Your task to perform on an android device: Show me the alarms in the clock app Image 0: 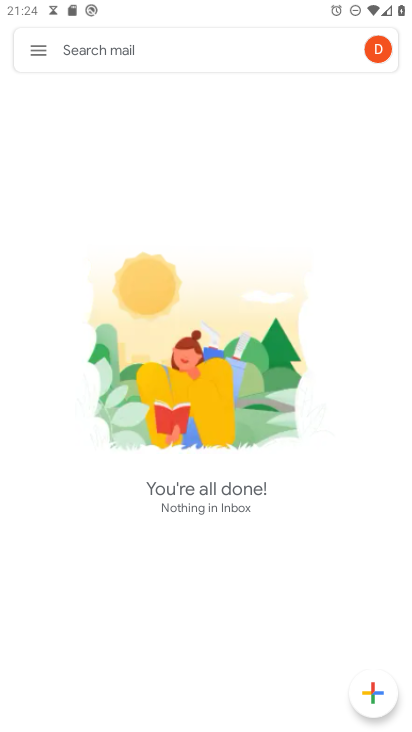
Step 0: press home button
Your task to perform on an android device: Show me the alarms in the clock app Image 1: 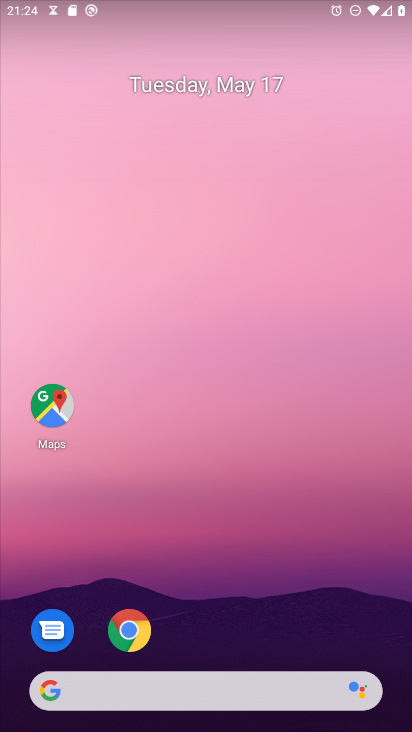
Step 1: drag from (228, 584) to (204, 70)
Your task to perform on an android device: Show me the alarms in the clock app Image 2: 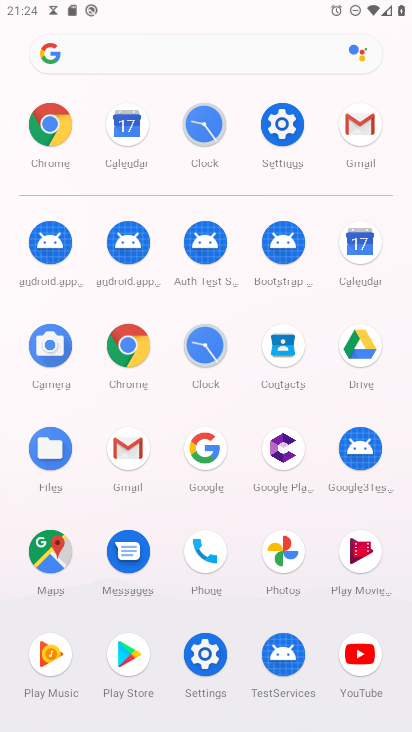
Step 2: click (209, 341)
Your task to perform on an android device: Show me the alarms in the clock app Image 3: 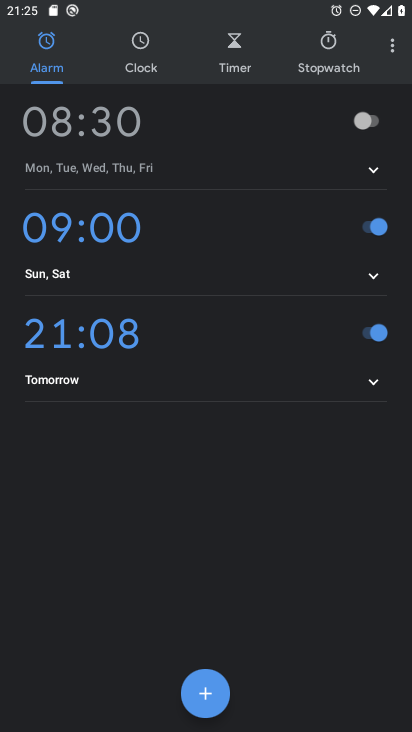
Step 3: task complete